Your task to perform on an android device: change your default location settings in chrome Image 0: 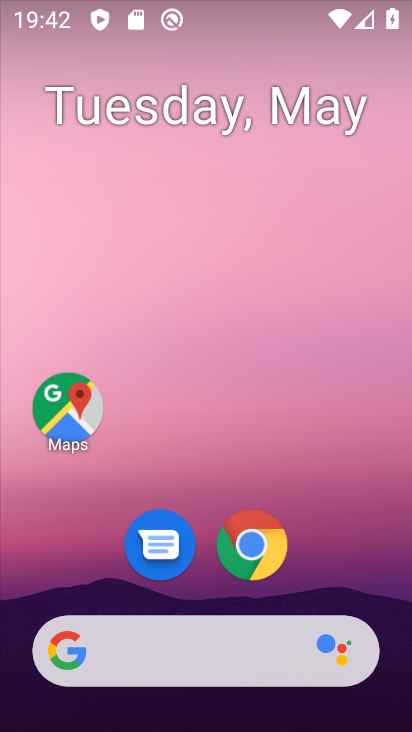
Step 0: click (271, 564)
Your task to perform on an android device: change your default location settings in chrome Image 1: 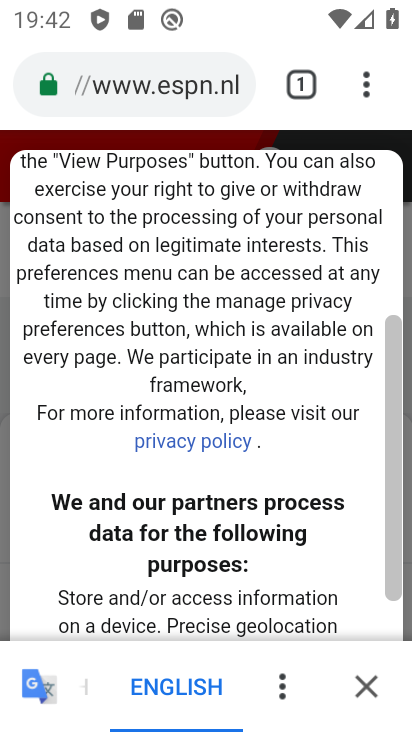
Step 1: click (365, 97)
Your task to perform on an android device: change your default location settings in chrome Image 2: 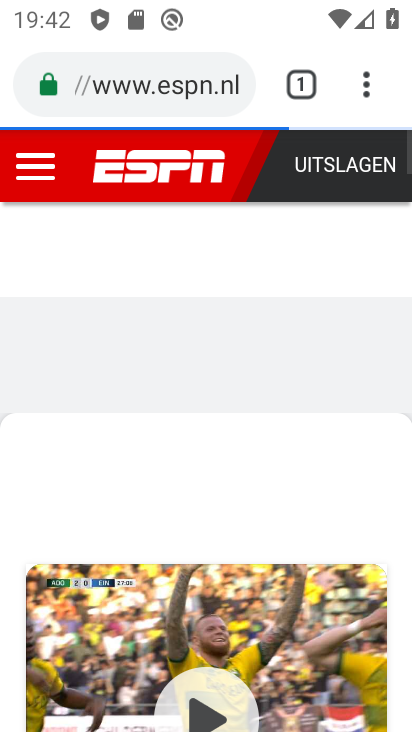
Step 2: click (377, 96)
Your task to perform on an android device: change your default location settings in chrome Image 3: 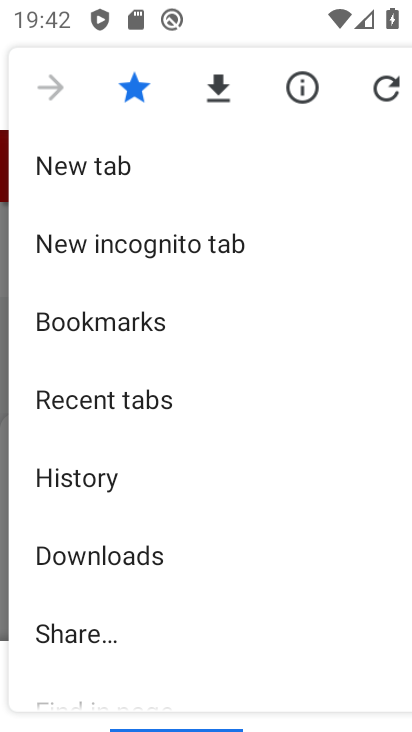
Step 3: drag from (257, 530) to (249, 260)
Your task to perform on an android device: change your default location settings in chrome Image 4: 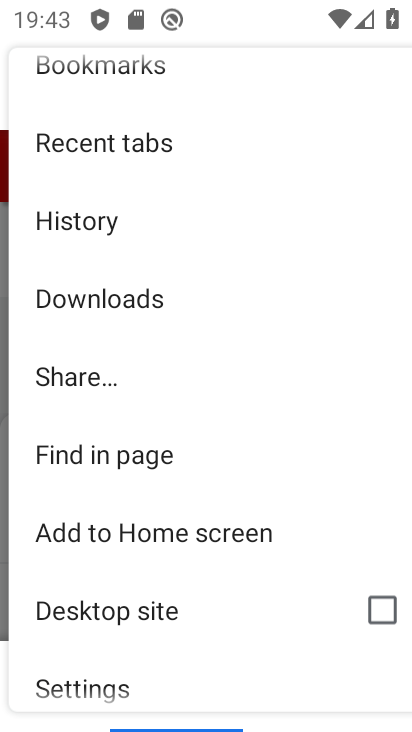
Step 4: drag from (178, 666) to (170, 437)
Your task to perform on an android device: change your default location settings in chrome Image 5: 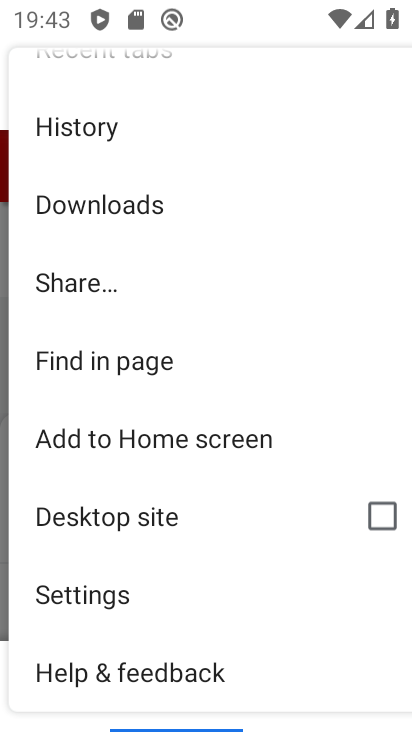
Step 5: click (141, 597)
Your task to perform on an android device: change your default location settings in chrome Image 6: 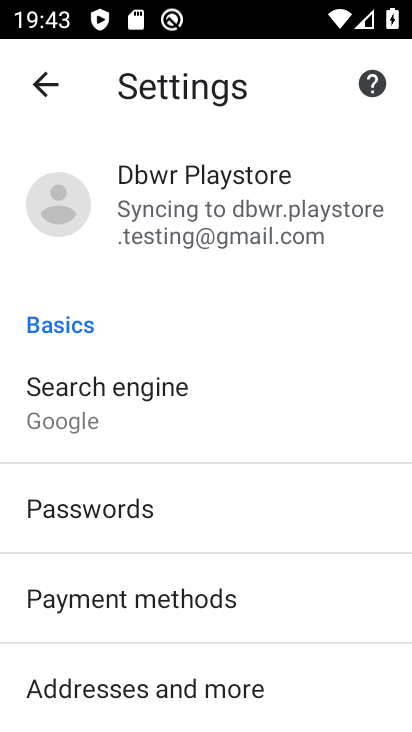
Step 6: drag from (194, 630) to (220, 219)
Your task to perform on an android device: change your default location settings in chrome Image 7: 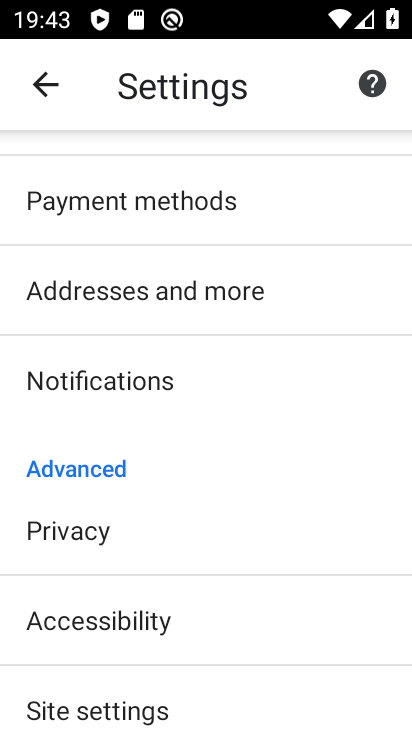
Step 7: drag from (214, 546) to (214, 205)
Your task to perform on an android device: change your default location settings in chrome Image 8: 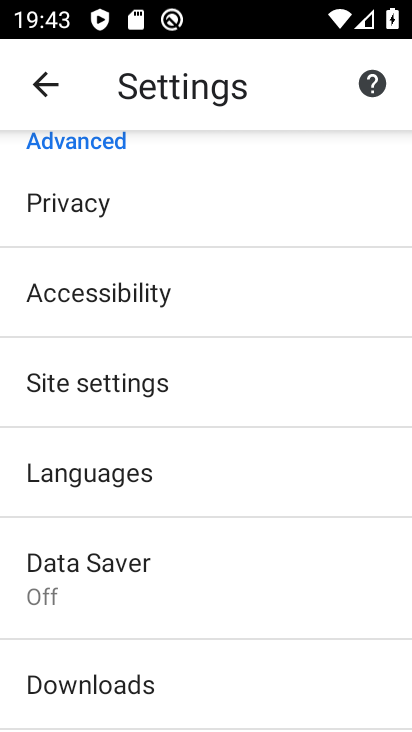
Step 8: drag from (233, 617) to (232, 257)
Your task to perform on an android device: change your default location settings in chrome Image 9: 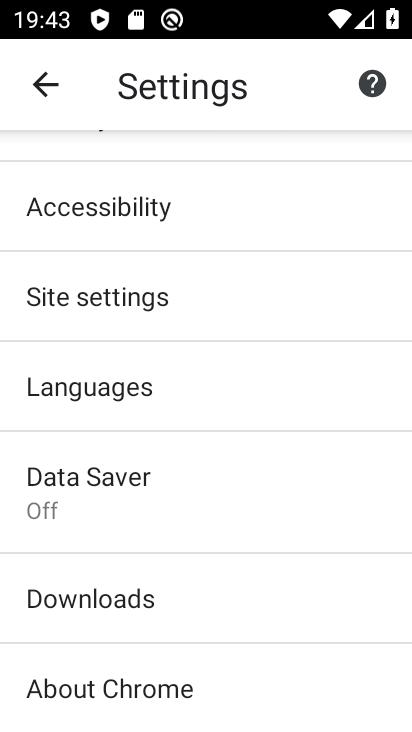
Step 9: drag from (106, 297) to (126, 391)
Your task to perform on an android device: change your default location settings in chrome Image 10: 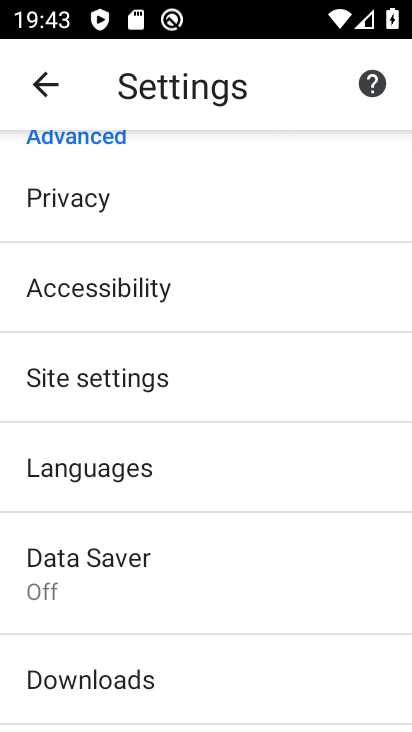
Step 10: click (125, 371)
Your task to perform on an android device: change your default location settings in chrome Image 11: 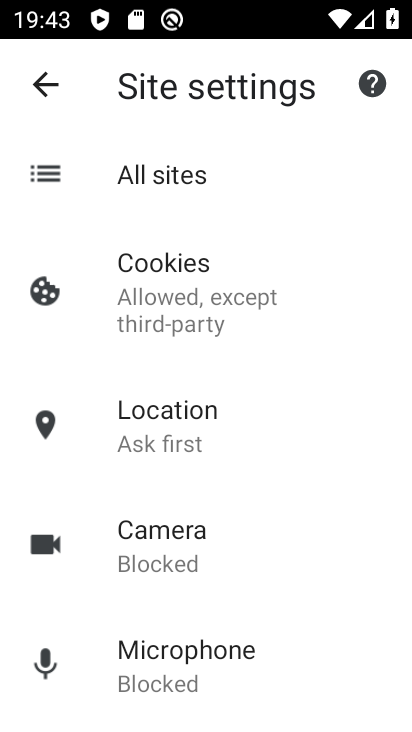
Step 11: click (231, 431)
Your task to perform on an android device: change your default location settings in chrome Image 12: 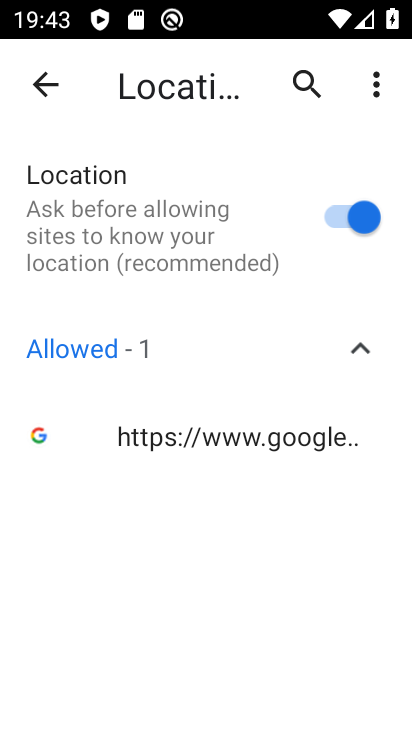
Step 12: click (349, 222)
Your task to perform on an android device: change your default location settings in chrome Image 13: 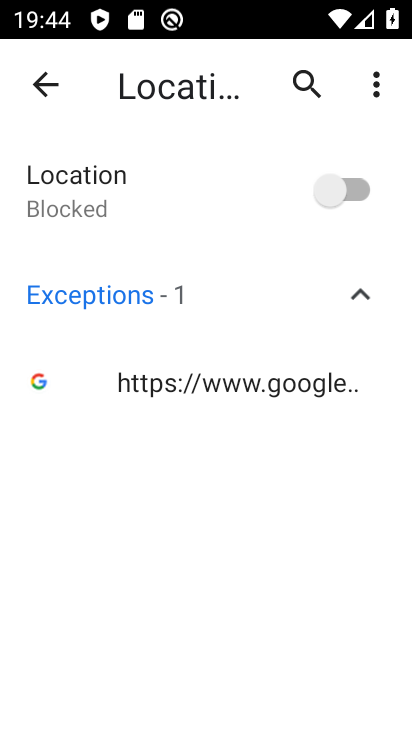
Step 13: task complete